Your task to perform on an android device: Go to Android settings Image 0: 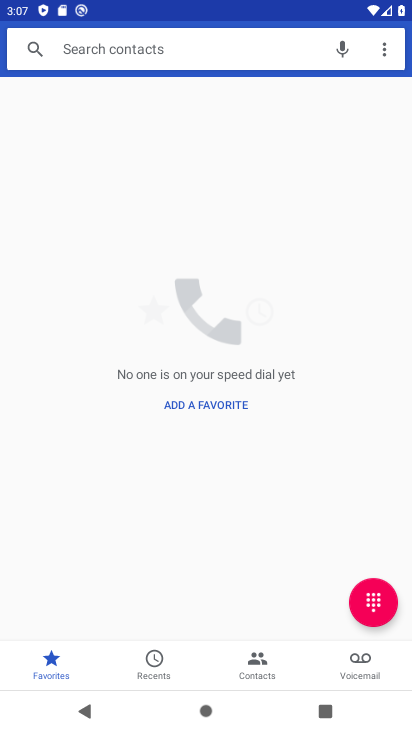
Step 0: press home button
Your task to perform on an android device: Go to Android settings Image 1: 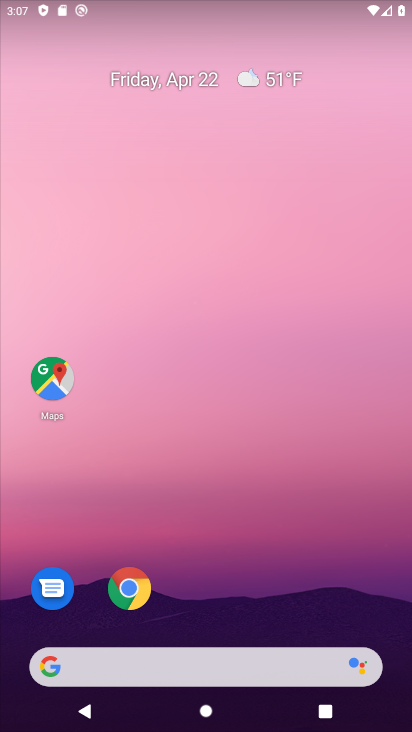
Step 1: drag from (358, 590) to (368, 72)
Your task to perform on an android device: Go to Android settings Image 2: 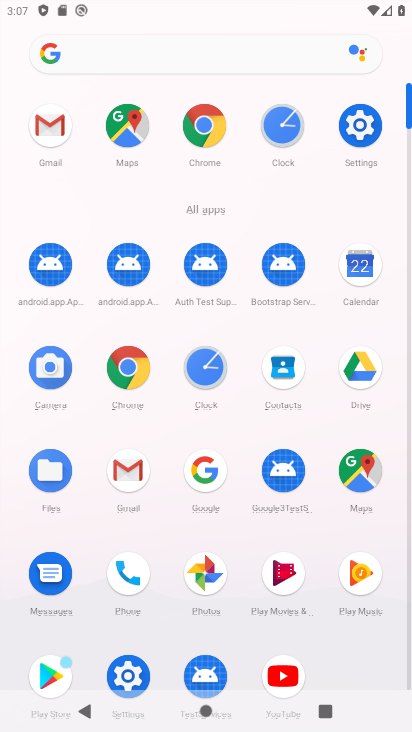
Step 2: click (366, 133)
Your task to perform on an android device: Go to Android settings Image 3: 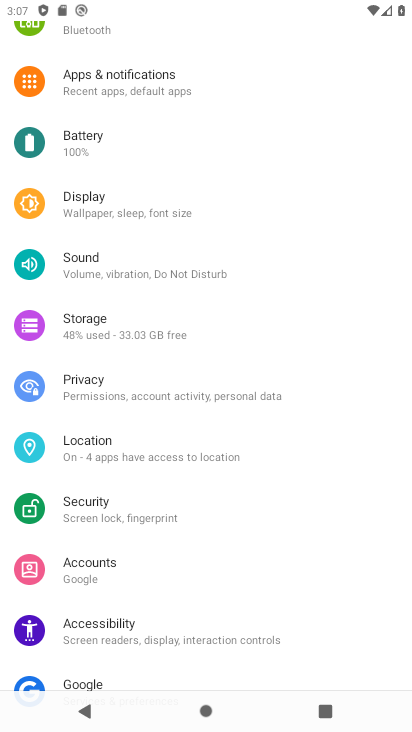
Step 3: drag from (347, 287) to (348, 476)
Your task to perform on an android device: Go to Android settings Image 4: 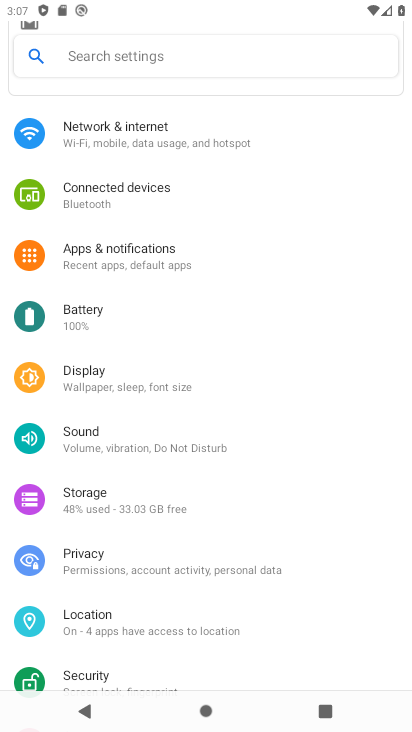
Step 4: drag from (353, 263) to (354, 448)
Your task to perform on an android device: Go to Android settings Image 5: 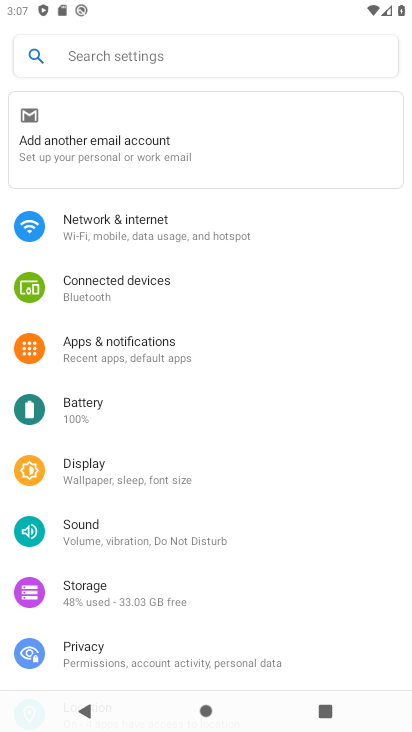
Step 5: drag from (349, 590) to (348, 431)
Your task to perform on an android device: Go to Android settings Image 6: 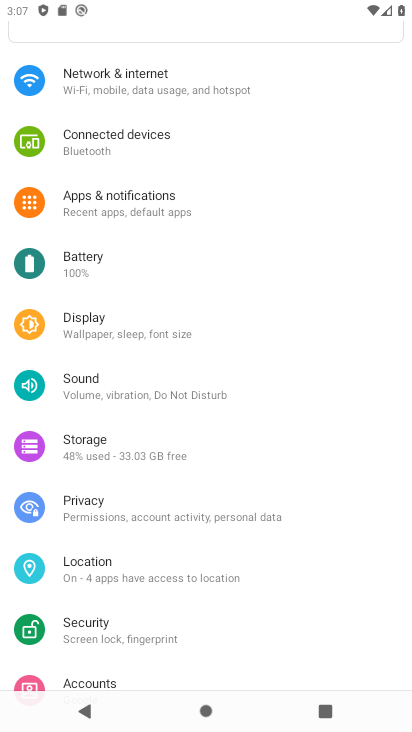
Step 6: drag from (351, 603) to (355, 425)
Your task to perform on an android device: Go to Android settings Image 7: 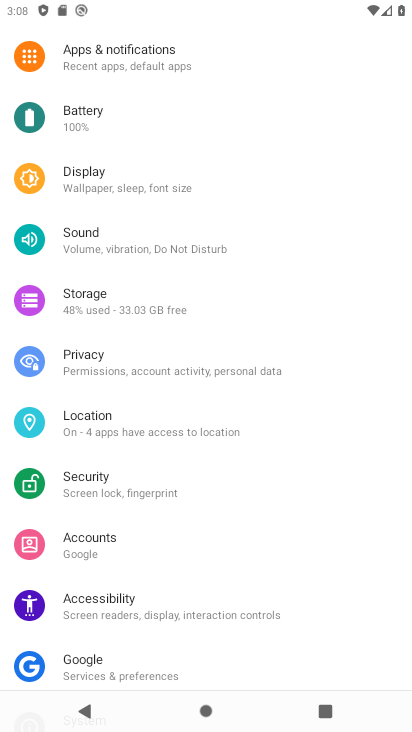
Step 7: drag from (365, 612) to (354, 466)
Your task to perform on an android device: Go to Android settings Image 8: 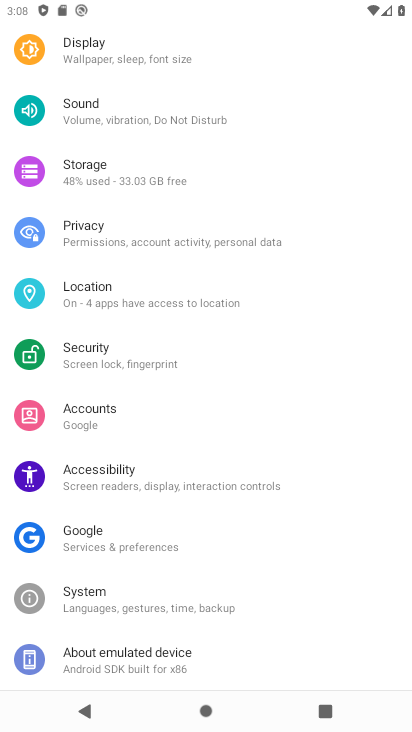
Step 8: drag from (323, 619) to (338, 451)
Your task to perform on an android device: Go to Android settings Image 9: 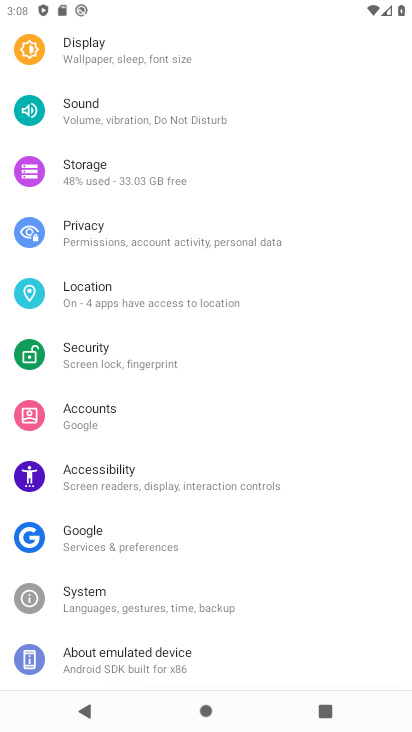
Step 9: click (222, 601)
Your task to perform on an android device: Go to Android settings Image 10: 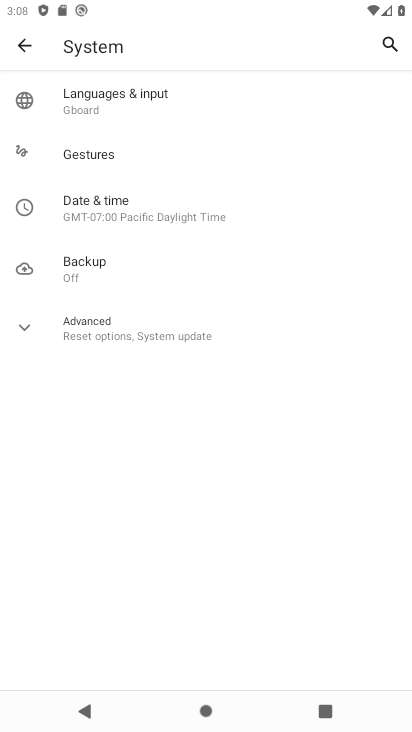
Step 10: click (200, 328)
Your task to perform on an android device: Go to Android settings Image 11: 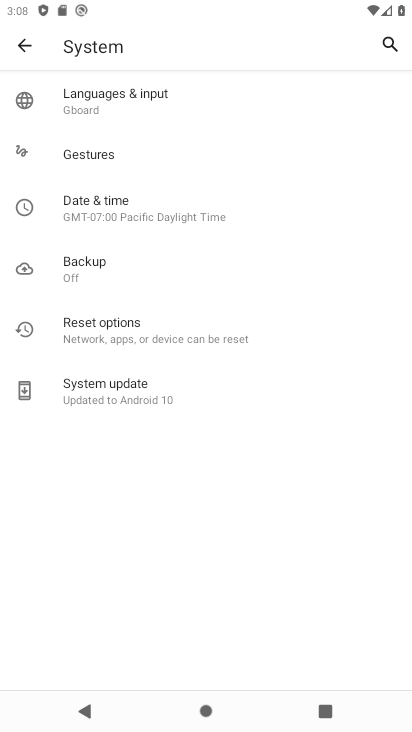
Step 11: task complete